Your task to perform on an android device: Go to Amazon Image 0: 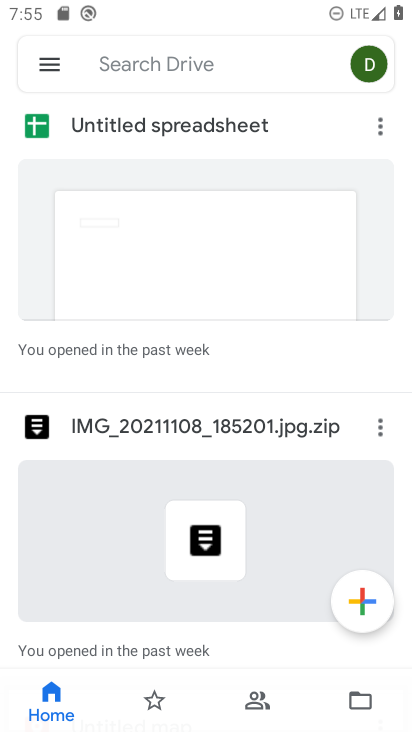
Step 0: press home button
Your task to perform on an android device: Go to Amazon Image 1: 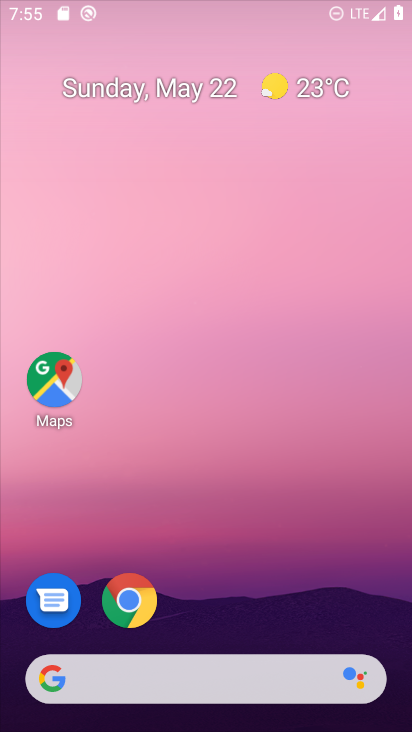
Step 1: drag from (356, 604) to (290, 69)
Your task to perform on an android device: Go to Amazon Image 2: 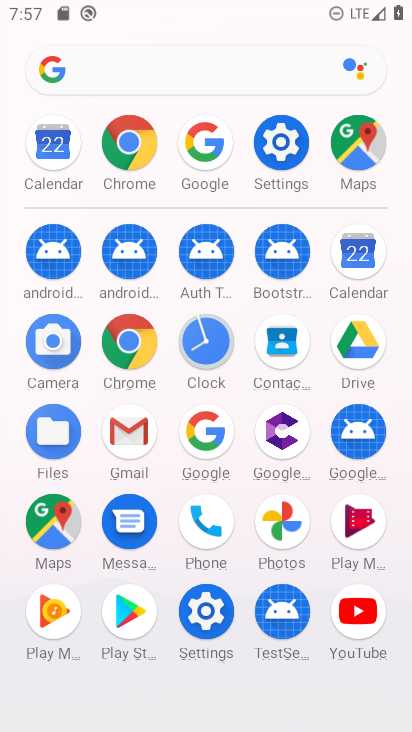
Step 2: click (119, 337)
Your task to perform on an android device: Go to Amazon Image 3: 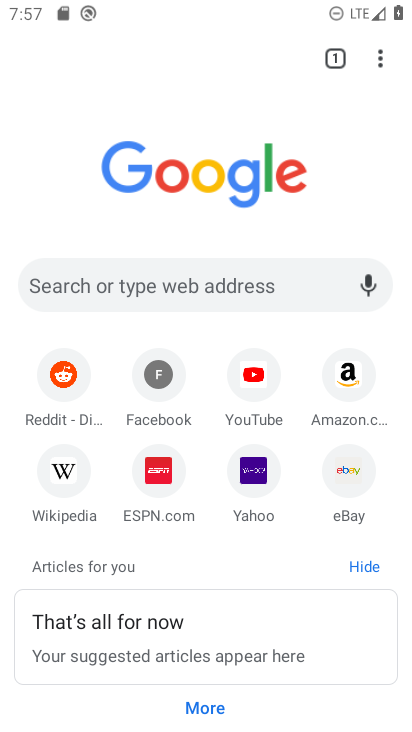
Step 3: click (347, 366)
Your task to perform on an android device: Go to Amazon Image 4: 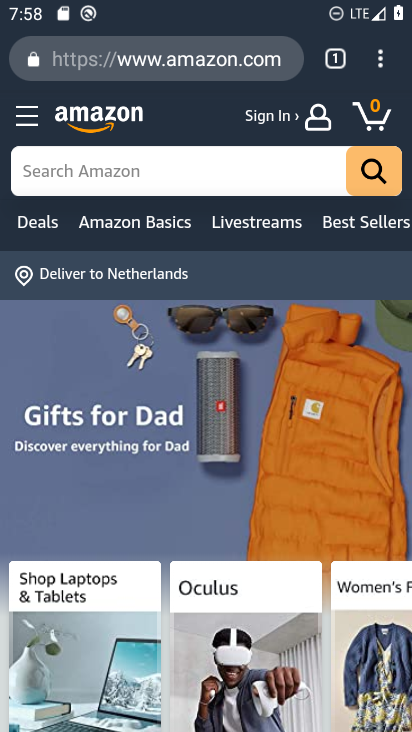
Step 4: task complete